Your task to perform on an android device: open device folders in google photos Image 0: 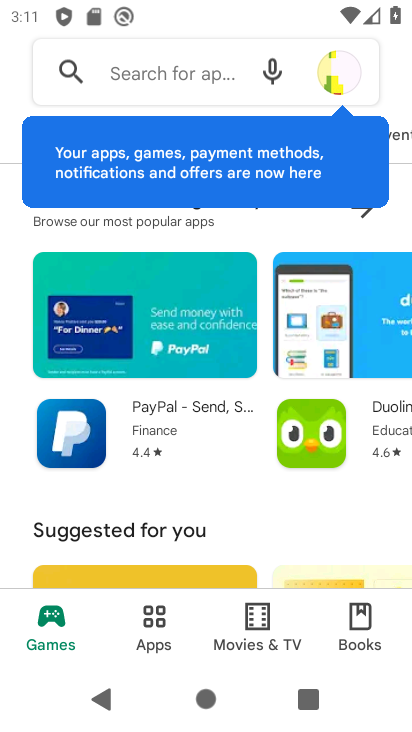
Step 0: press home button
Your task to perform on an android device: open device folders in google photos Image 1: 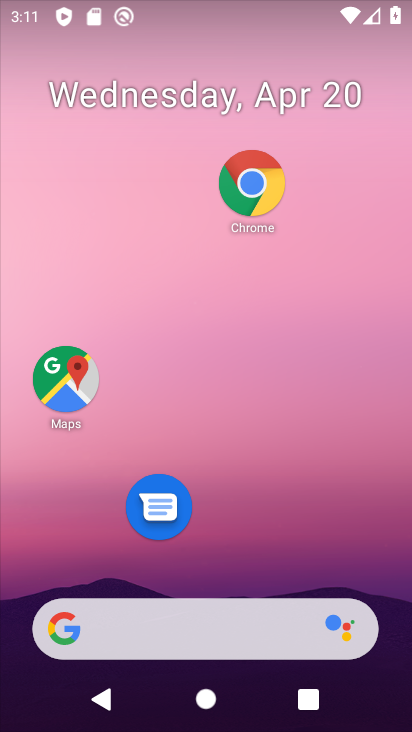
Step 1: drag from (268, 557) to (255, 205)
Your task to perform on an android device: open device folders in google photos Image 2: 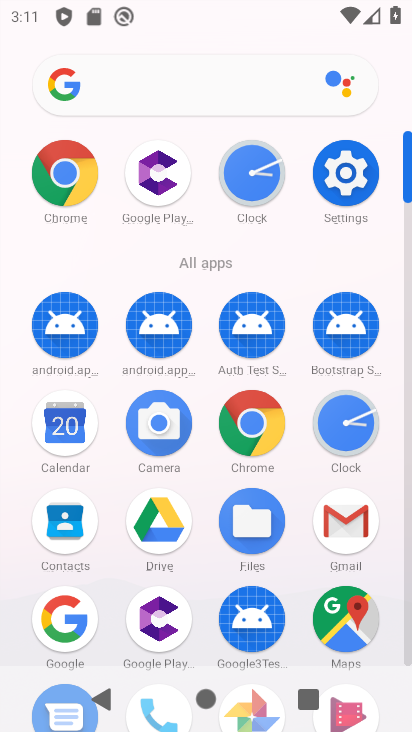
Step 2: drag from (218, 569) to (205, 325)
Your task to perform on an android device: open device folders in google photos Image 3: 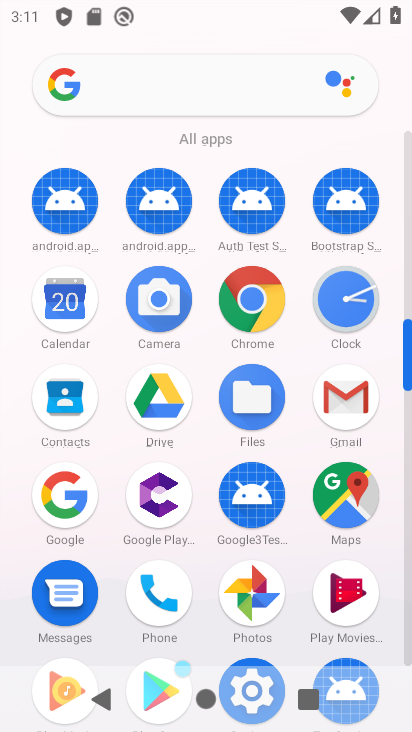
Step 3: click (255, 597)
Your task to perform on an android device: open device folders in google photos Image 4: 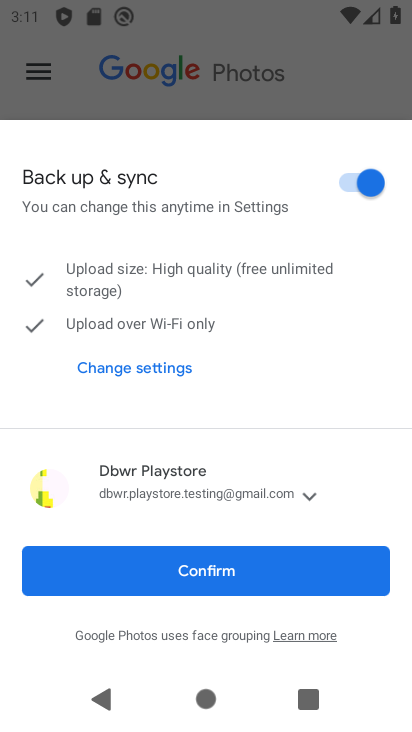
Step 4: click (248, 582)
Your task to perform on an android device: open device folders in google photos Image 5: 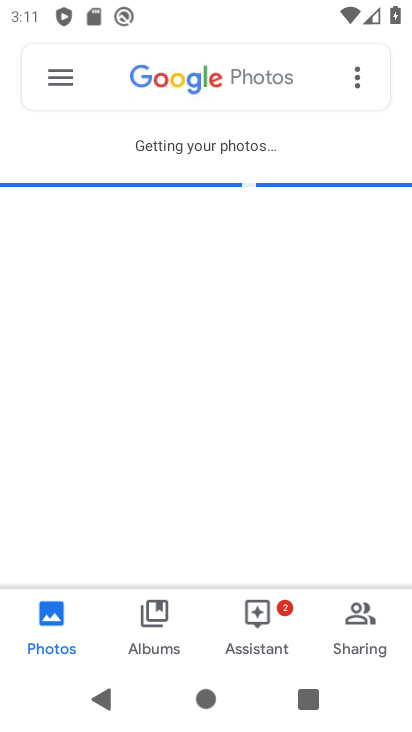
Step 5: click (60, 83)
Your task to perform on an android device: open device folders in google photos Image 6: 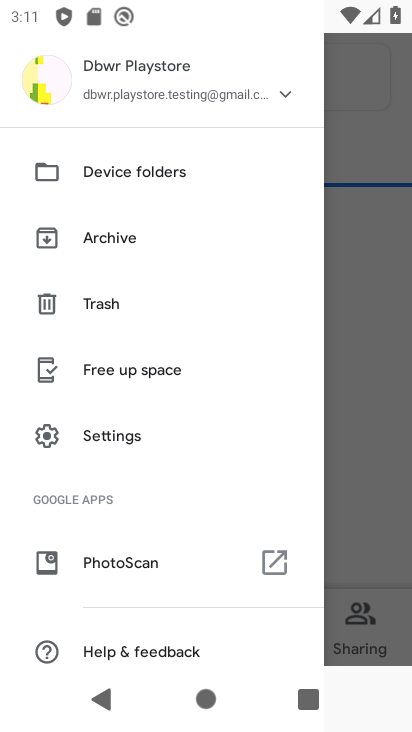
Step 6: click (151, 178)
Your task to perform on an android device: open device folders in google photos Image 7: 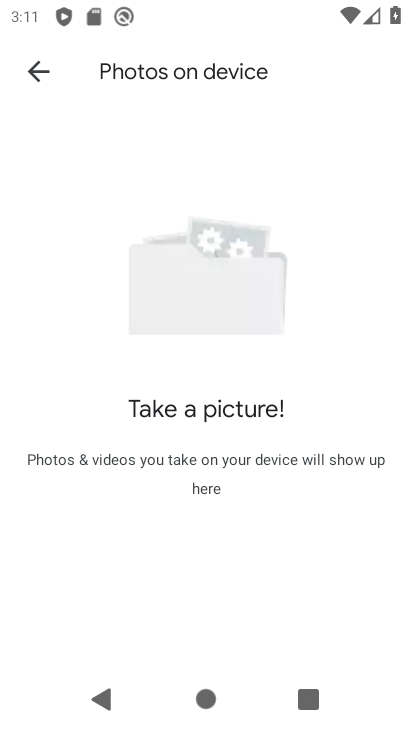
Step 7: task complete